Your task to perform on an android device: open app "PlayWell" Image 0: 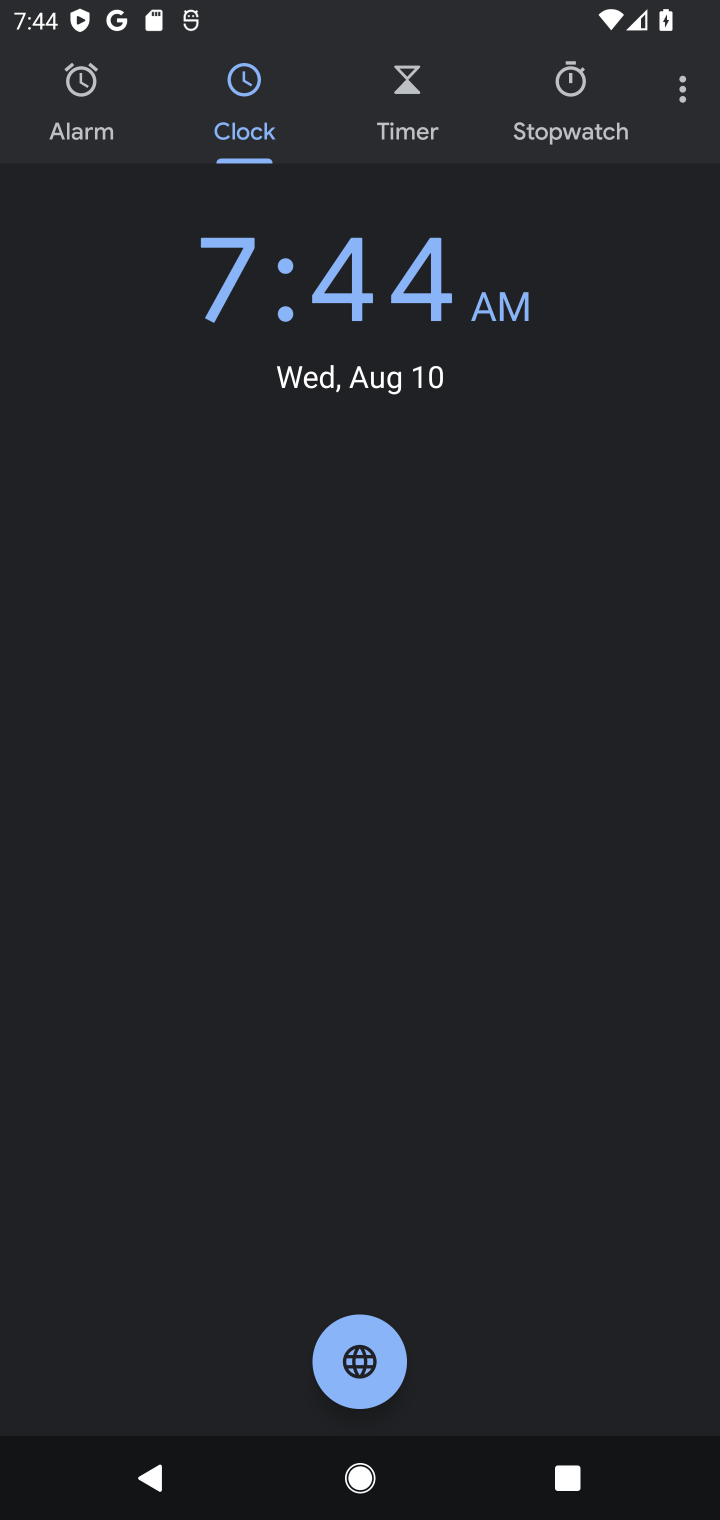
Step 0: press back button
Your task to perform on an android device: open app "PlayWell" Image 1: 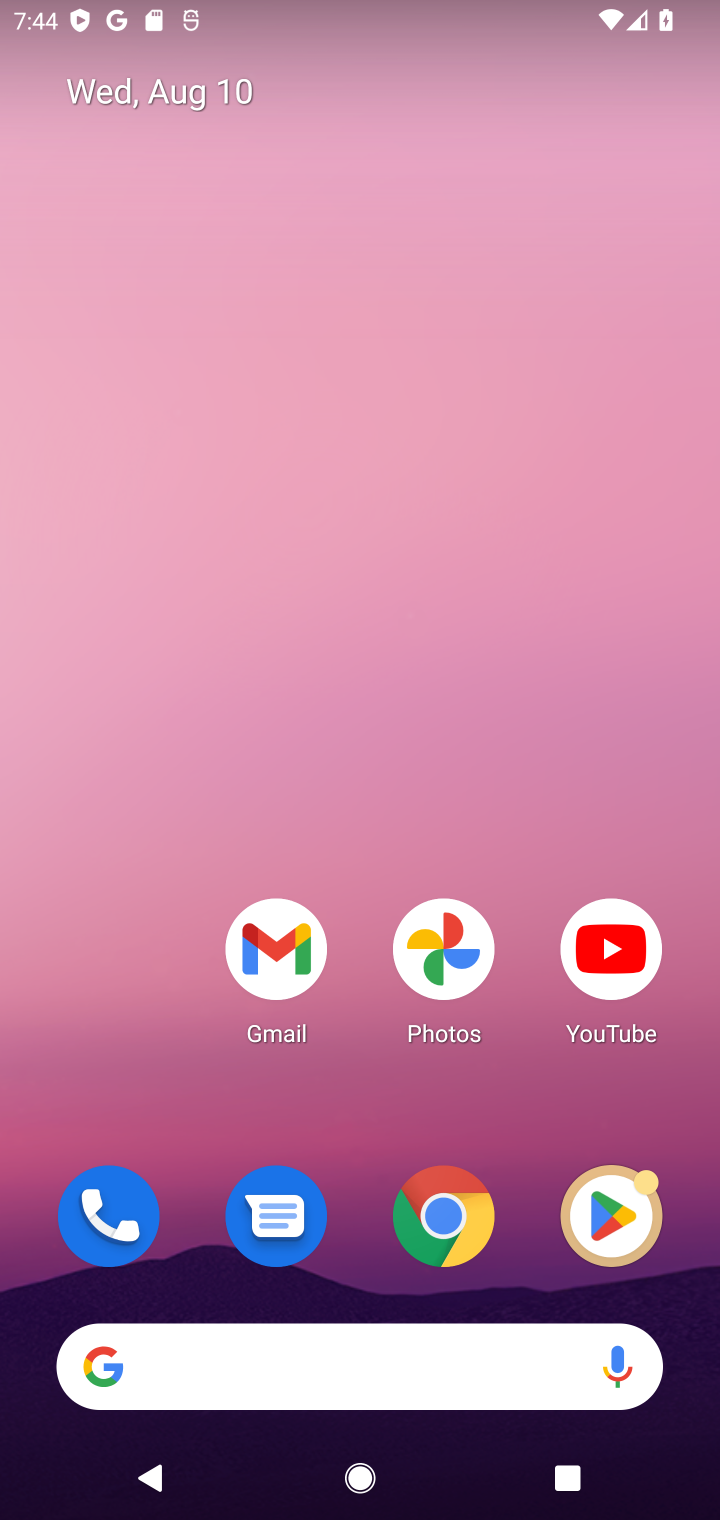
Step 1: click (633, 1208)
Your task to perform on an android device: open app "PlayWell" Image 2: 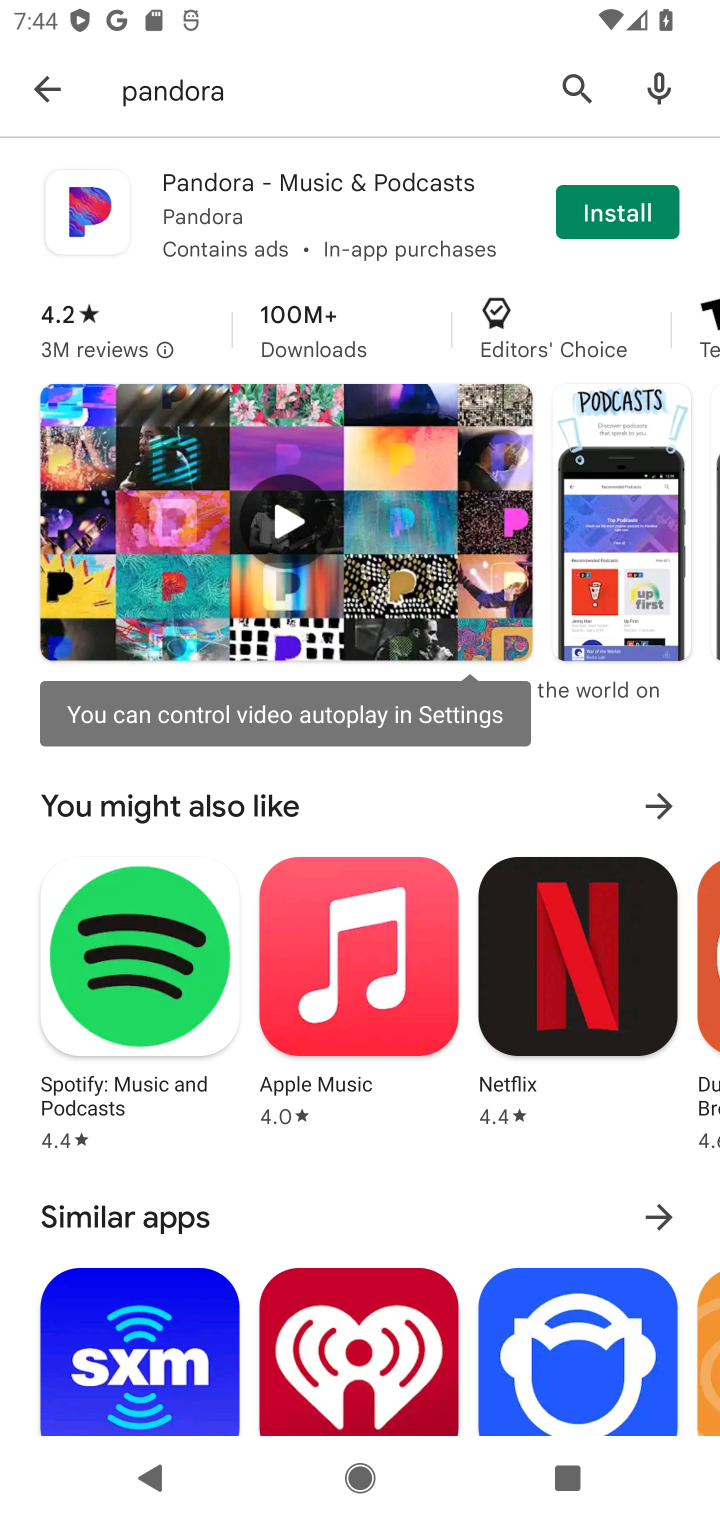
Step 2: click (547, 76)
Your task to perform on an android device: open app "PlayWell" Image 3: 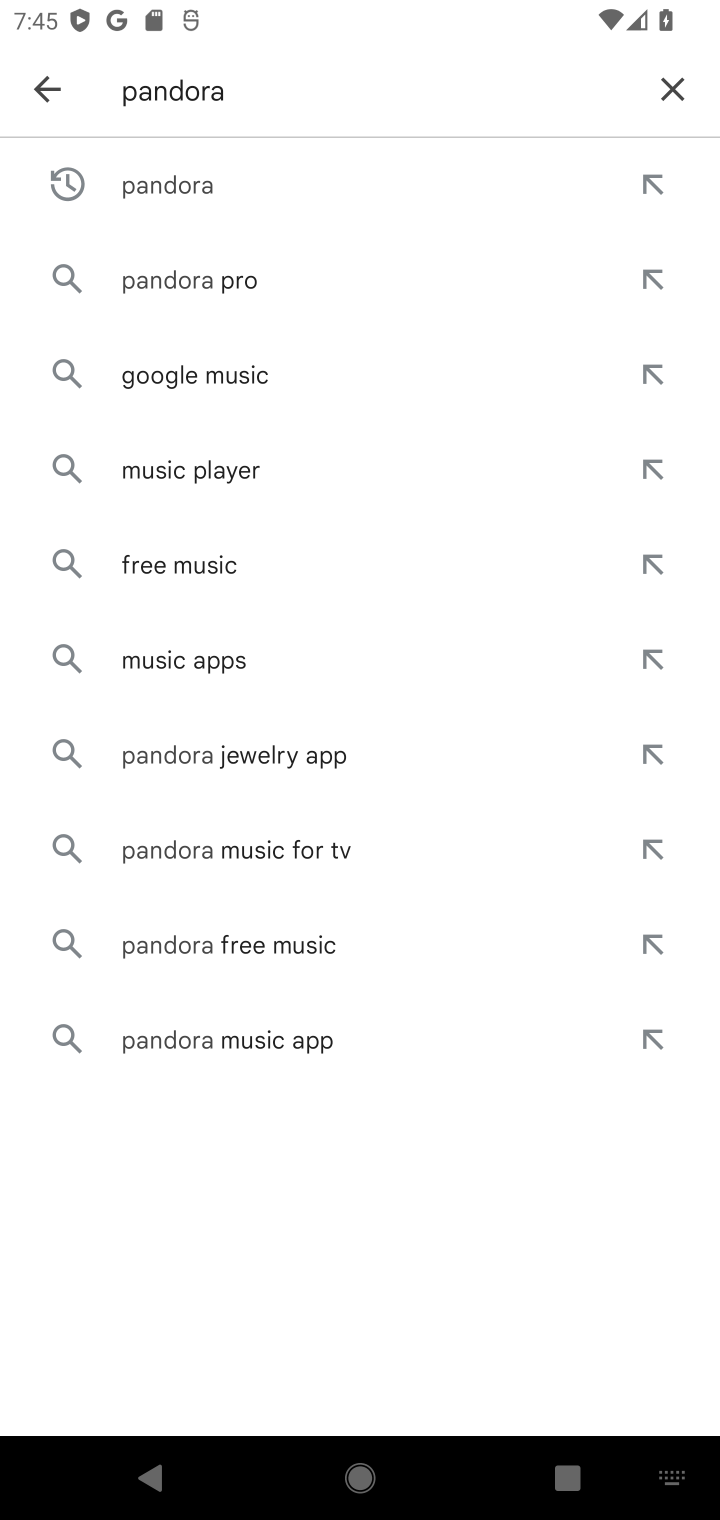
Step 3: click (656, 89)
Your task to perform on an android device: open app "PlayWell" Image 4: 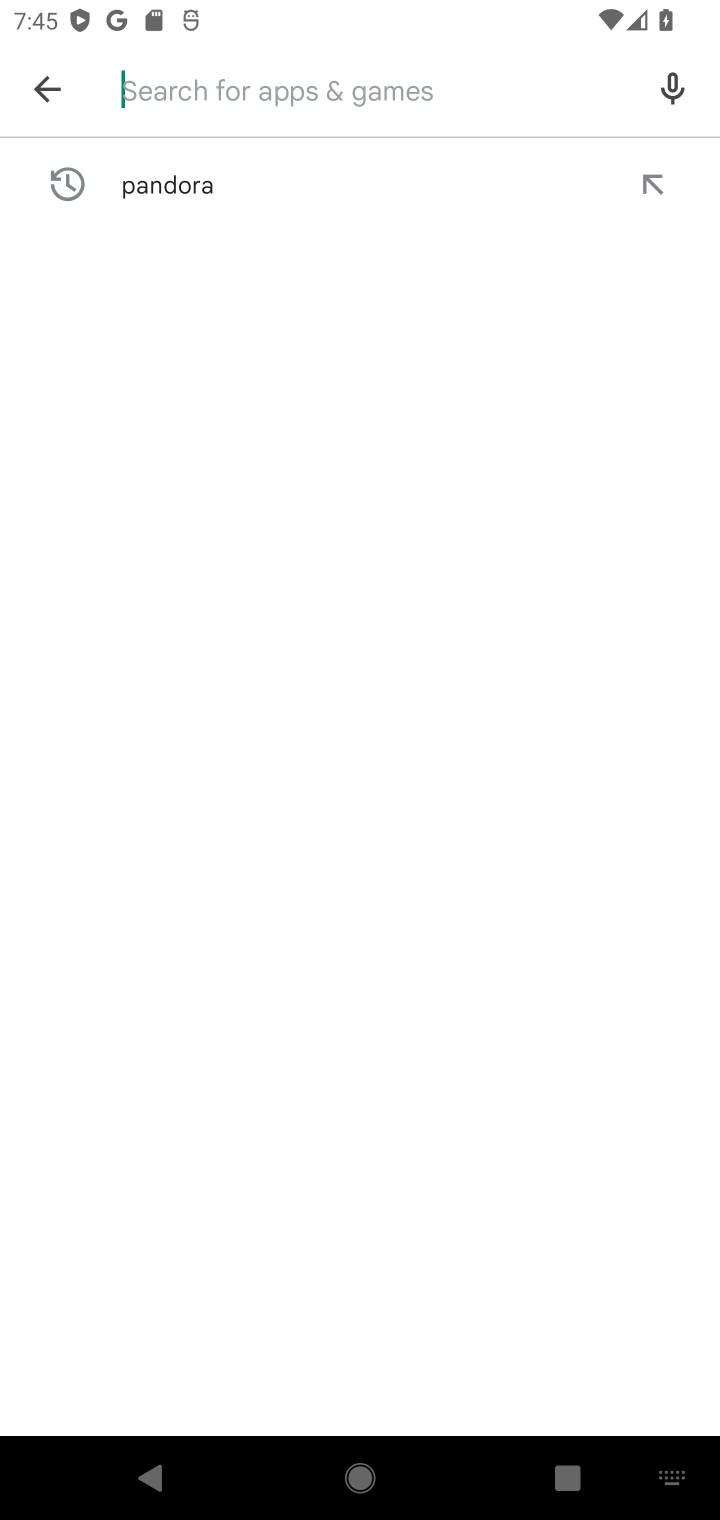
Step 4: click (301, 103)
Your task to perform on an android device: open app "PlayWell" Image 5: 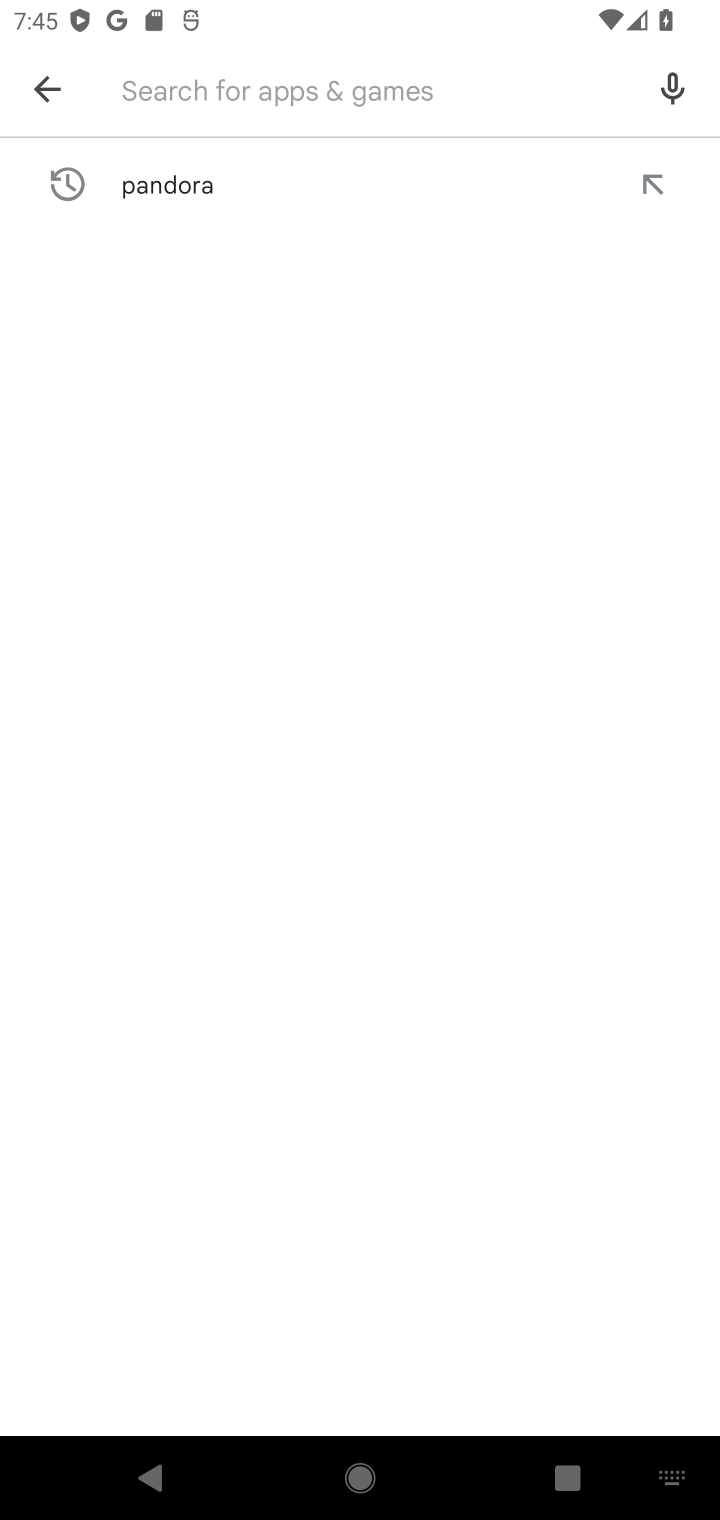
Step 5: type "playwell"
Your task to perform on an android device: open app "PlayWell" Image 6: 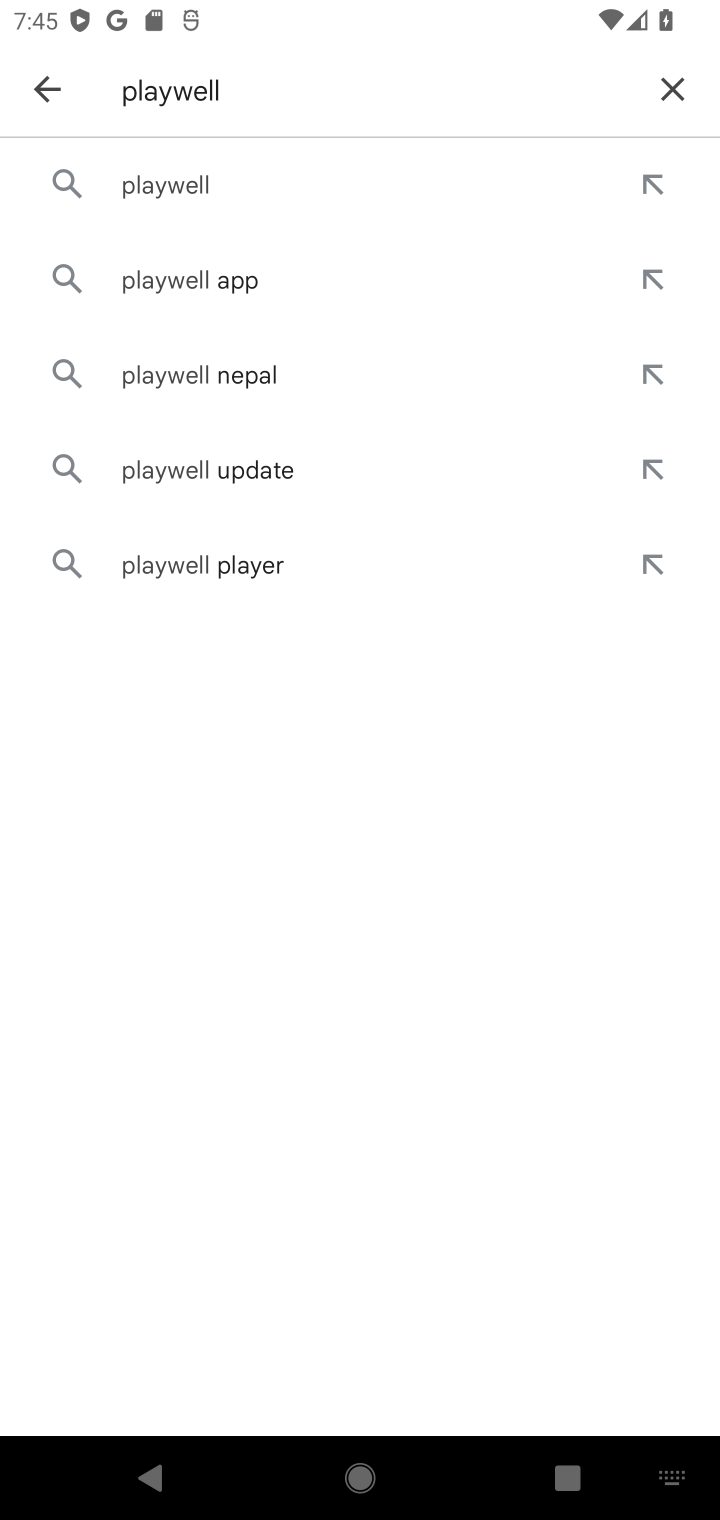
Step 6: click (208, 169)
Your task to perform on an android device: open app "PlayWell" Image 7: 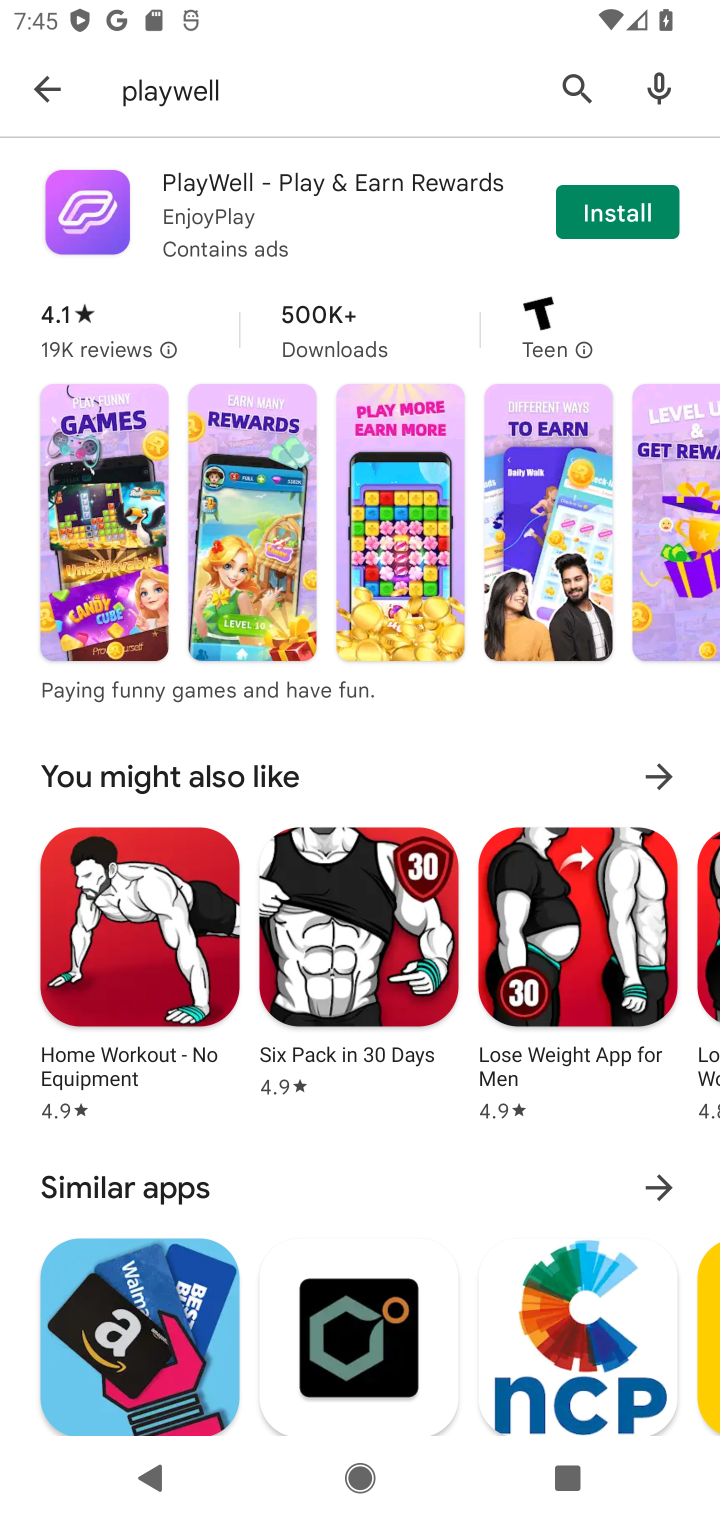
Step 7: task complete